Your task to perform on an android device: Go to Google Image 0: 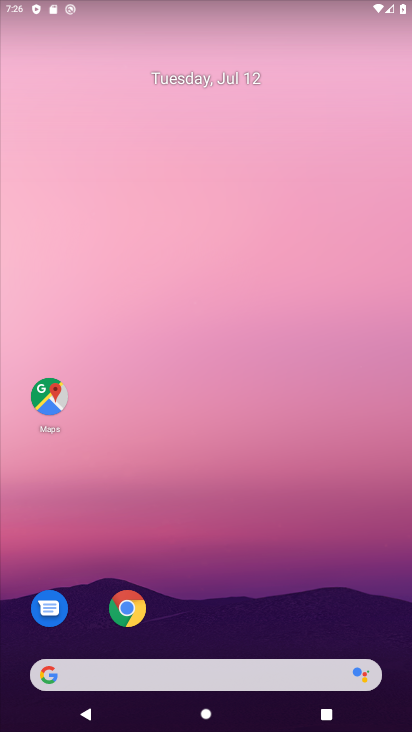
Step 0: click (148, 674)
Your task to perform on an android device: Go to Google Image 1: 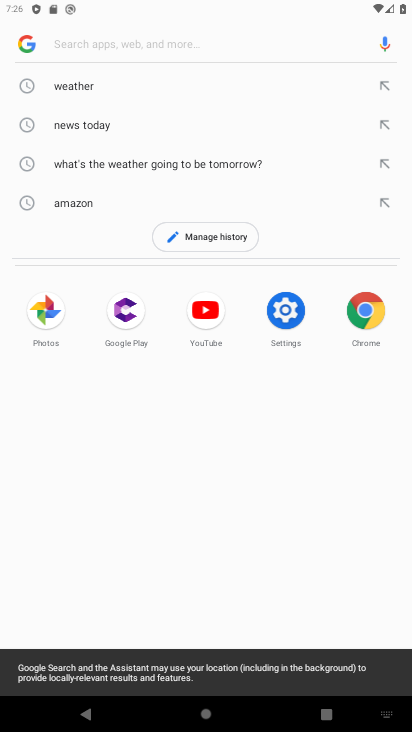
Step 1: task complete